Your task to perform on an android device: Open Google Maps Image 0: 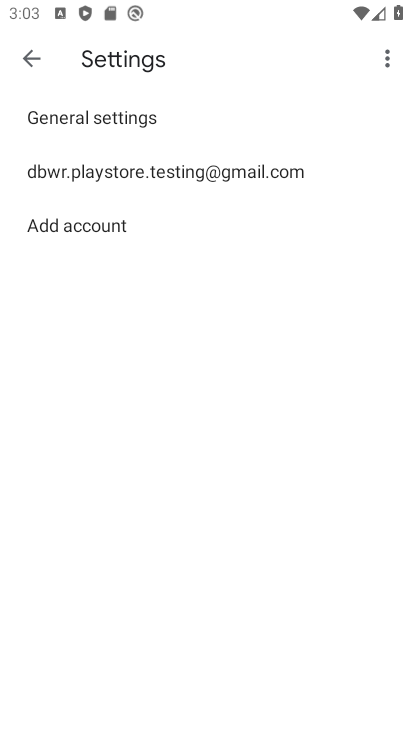
Step 0: click (43, 61)
Your task to perform on an android device: Open Google Maps Image 1: 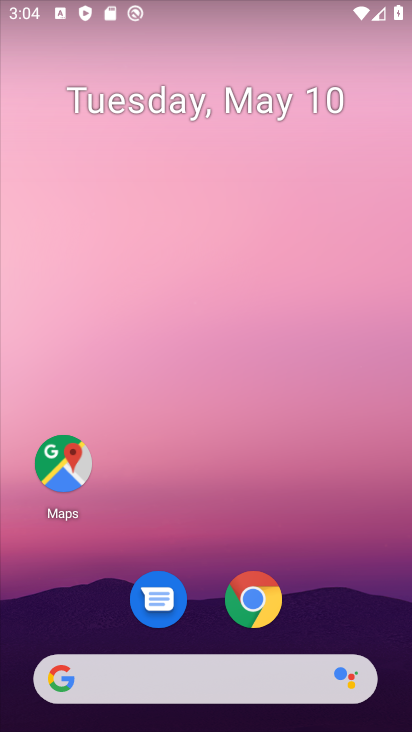
Step 1: click (87, 492)
Your task to perform on an android device: Open Google Maps Image 2: 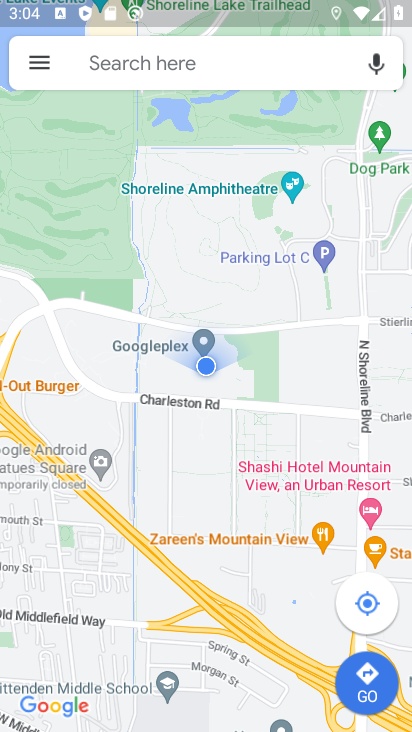
Step 2: task complete